Your task to perform on an android device: Open Yahoo.com Image 0: 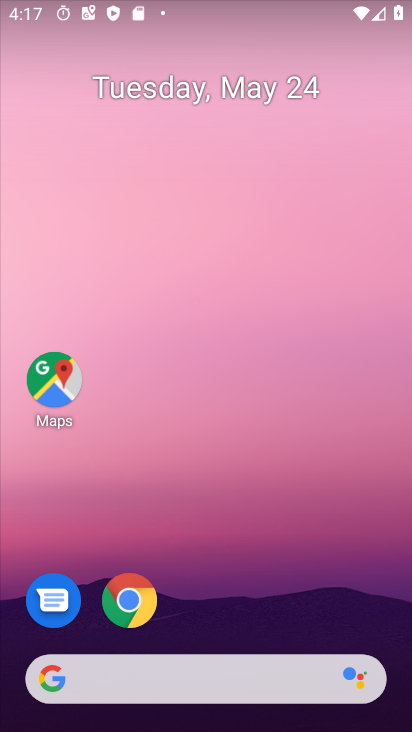
Step 0: click (122, 613)
Your task to perform on an android device: Open Yahoo.com Image 1: 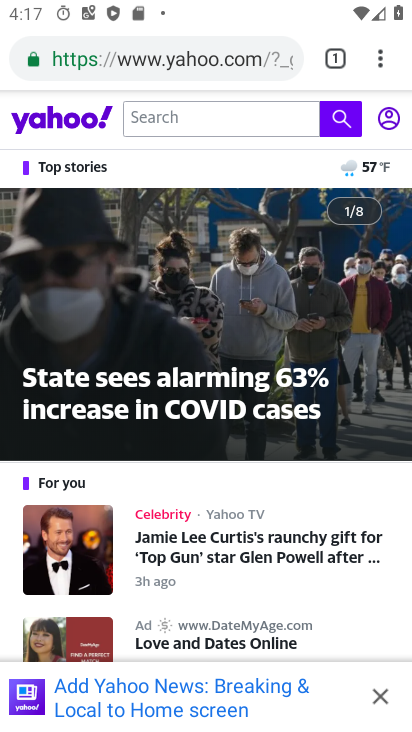
Step 1: task complete